Your task to perform on an android device: find which apps use the phone's location Image 0: 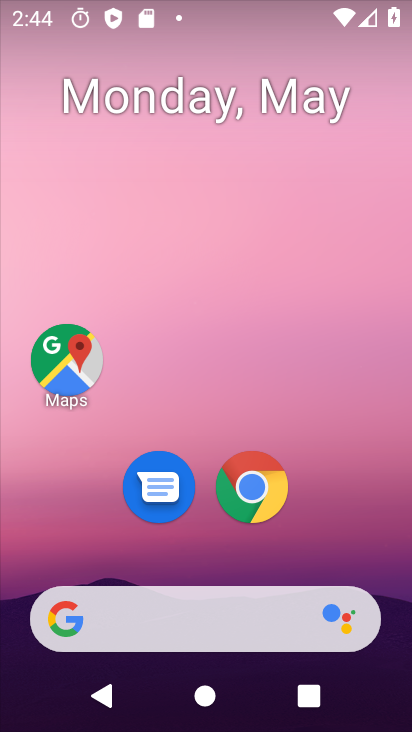
Step 0: drag from (257, 581) to (342, 12)
Your task to perform on an android device: find which apps use the phone's location Image 1: 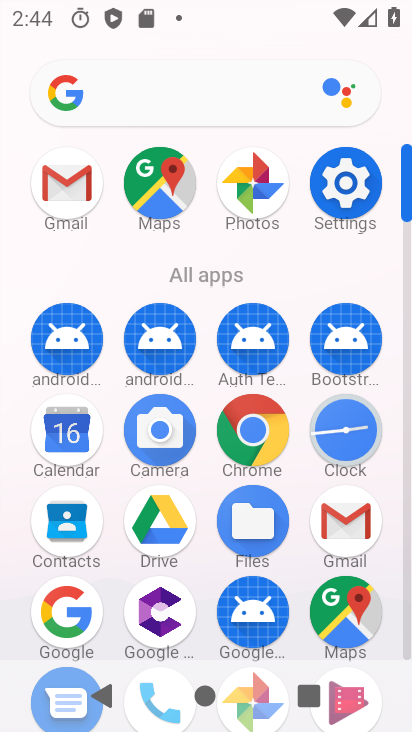
Step 1: drag from (218, 559) to (213, 385)
Your task to perform on an android device: find which apps use the phone's location Image 2: 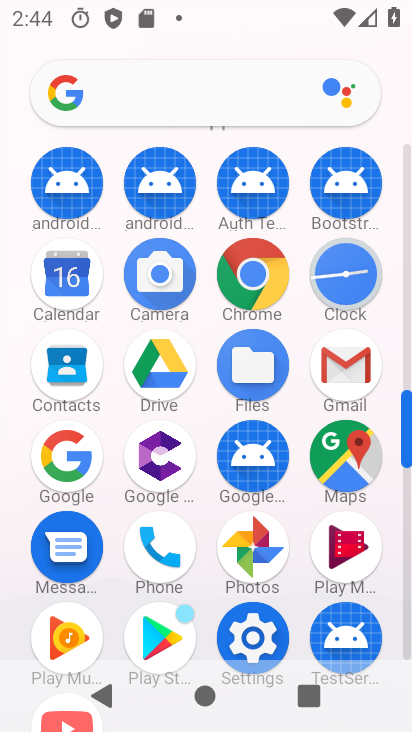
Step 2: drag from (210, 589) to (242, 295)
Your task to perform on an android device: find which apps use the phone's location Image 3: 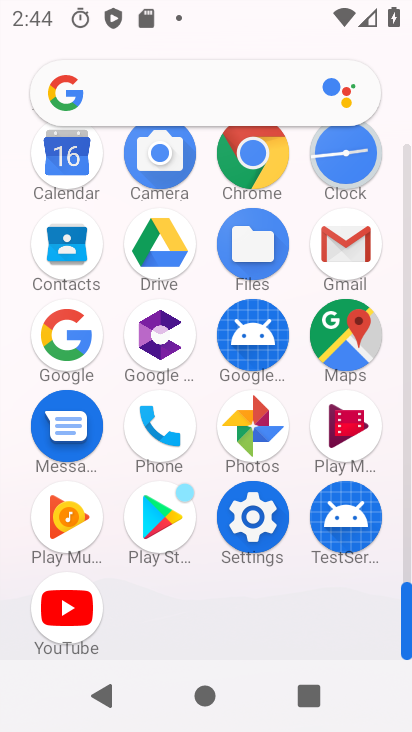
Step 3: click (250, 515)
Your task to perform on an android device: find which apps use the phone's location Image 4: 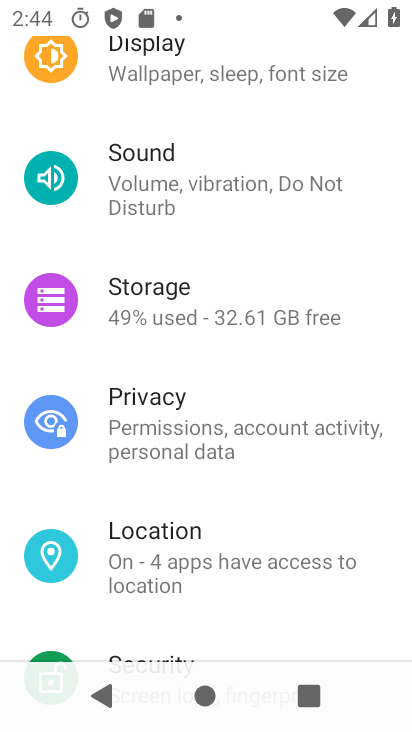
Step 4: drag from (201, 299) to (245, 164)
Your task to perform on an android device: find which apps use the phone's location Image 5: 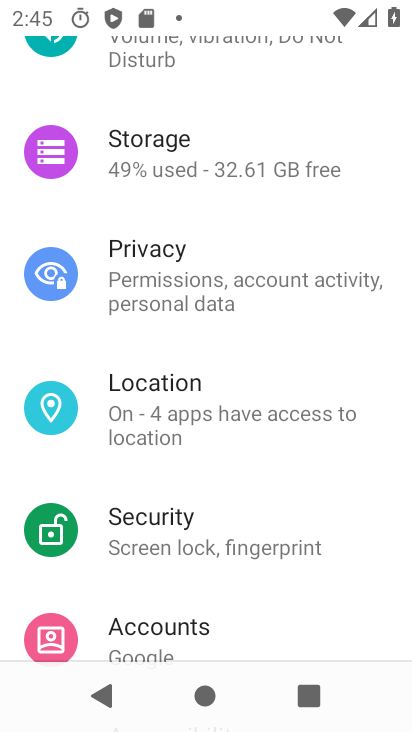
Step 5: click (209, 434)
Your task to perform on an android device: find which apps use the phone's location Image 6: 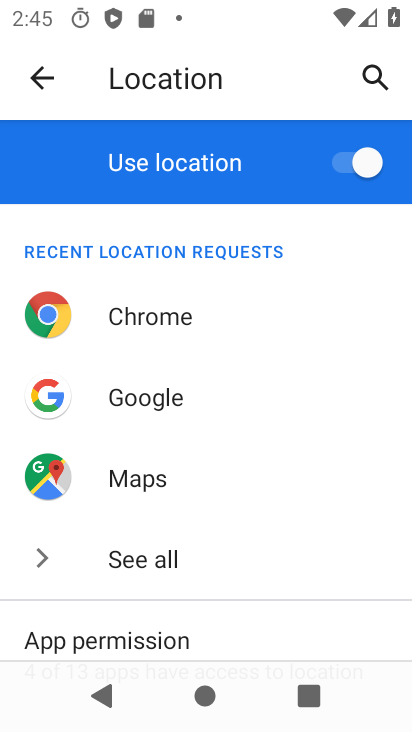
Step 6: drag from (166, 568) to (261, 227)
Your task to perform on an android device: find which apps use the phone's location Image 7: 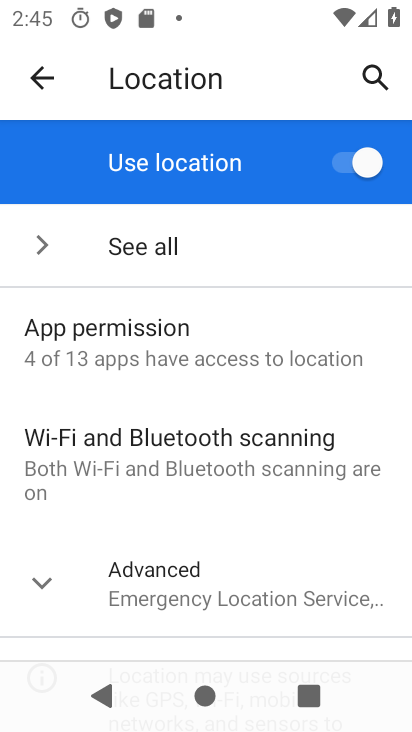
Step 7: click (171, 356)
Your task to perform on an android device: find which apps use the phone's location Image 8: 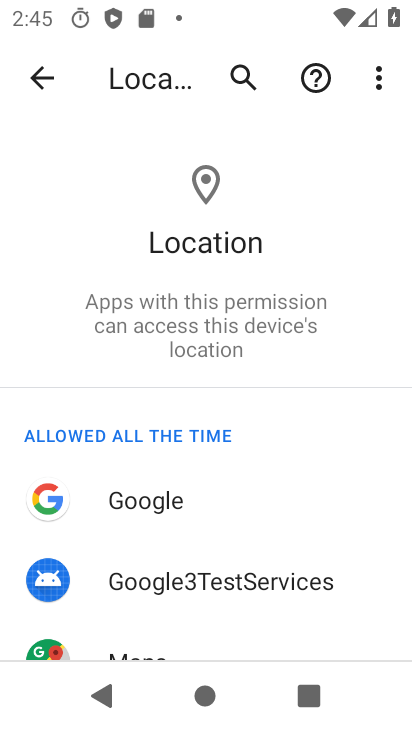
Step 8: task complete